Your task to perform on an android device: Go to battery settings Image 0: 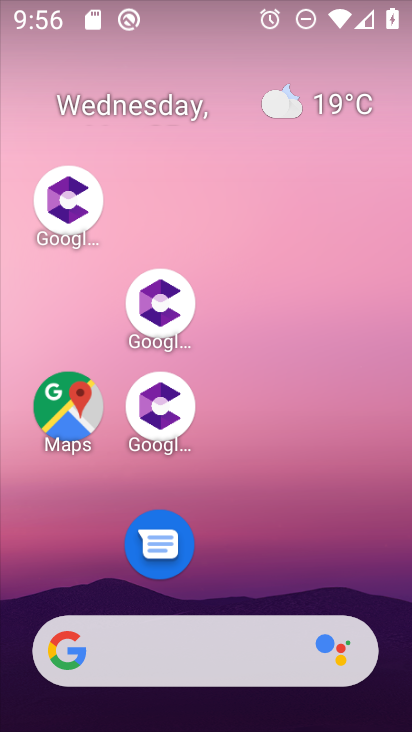
Step 0: drag from (339, 531) to (251, 38)
Your task to perform on an android device: Go to battery settings Image 1: 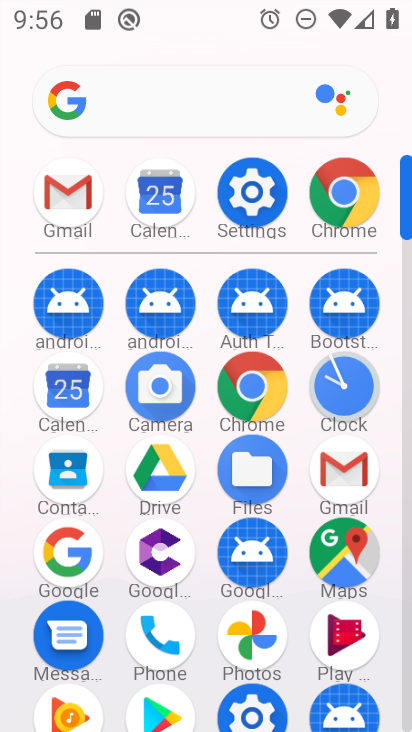
Step 1: click (254, 183)
Your task to perform on an android device: Go to battery settings Image 2: 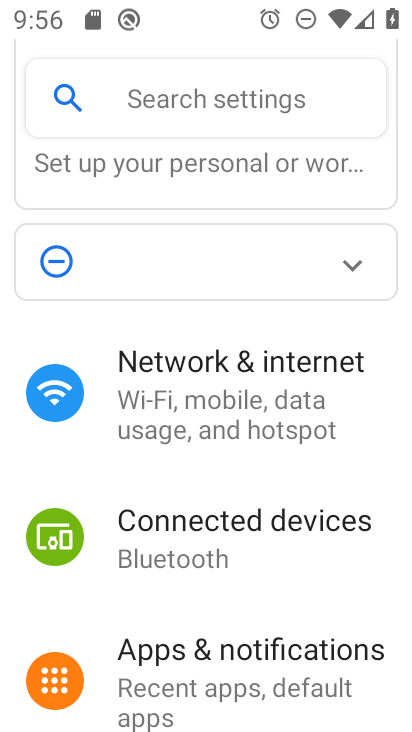
Step 2: drag from (248, 560) to (219, 178)
Your task to perform on an android device: Go to battery settings Image 3: 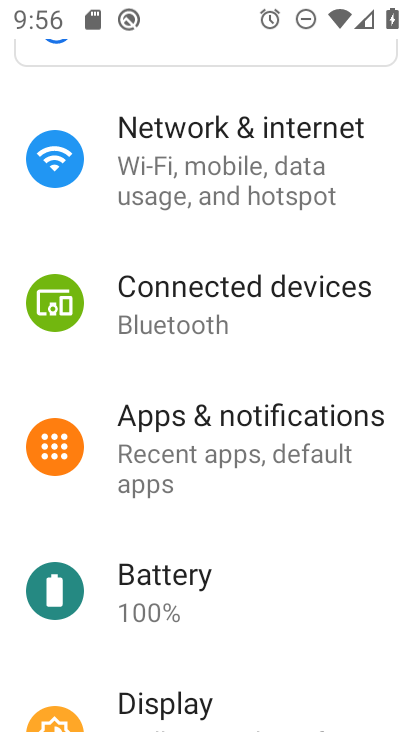
Step 3: click (158, 576)
Your task to perform on an android device: Go to battery settings Image 4: 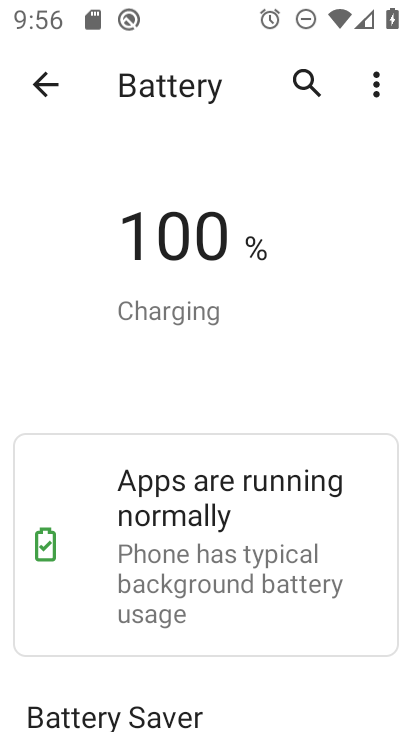
Step 4: task complete